Your task to perform on an android device: change alarm snooze length Image 0: 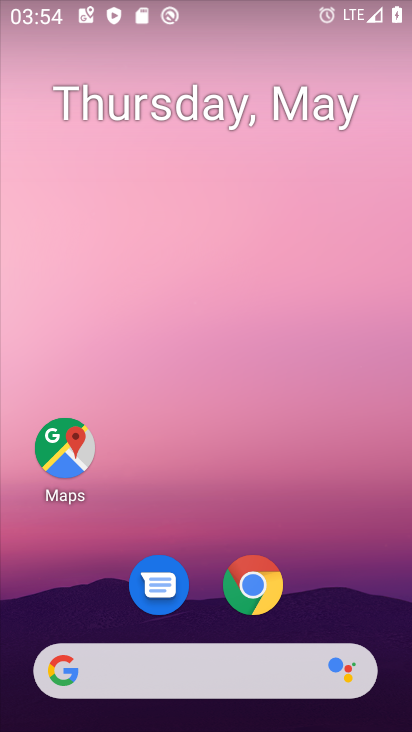
Step 0: drag from (202, 470) to (269, 38)
Your task to perform on an android device: change alarm snooze length Image 1: 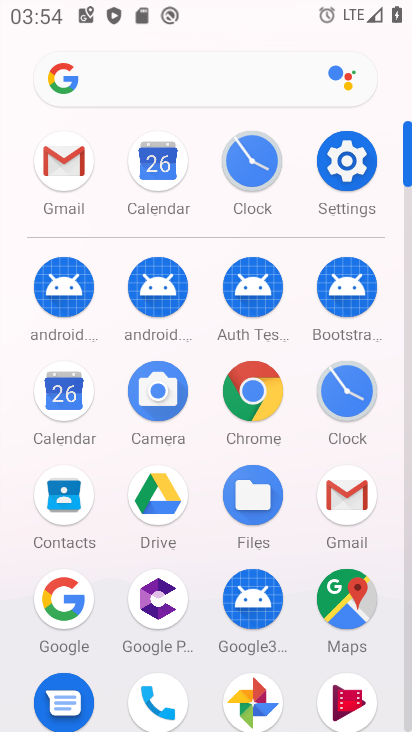
Step 1: click (260, 169)
Your task to perform on an android device: change alarm snooze length Image 2: 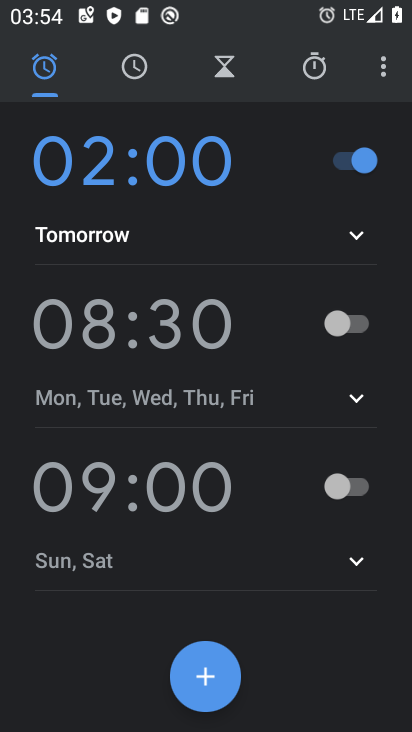
Step 2: click (381, 66)
Your task to perform on an android device: change alarm snooze length Image 3: 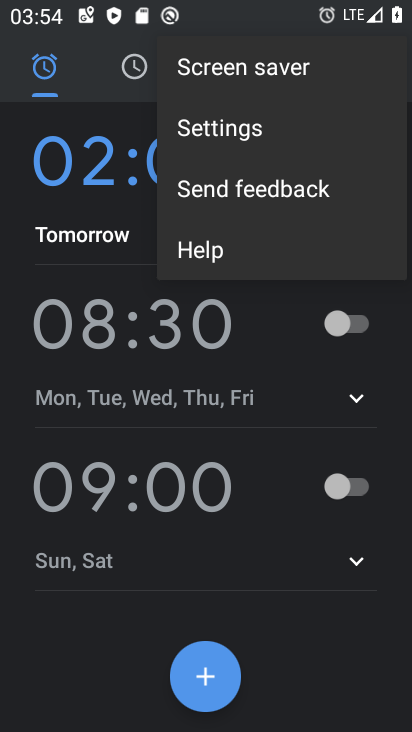
Step 3: click (280, 129)
Your task to perform on an android device: change alarm snooze length Image 4: 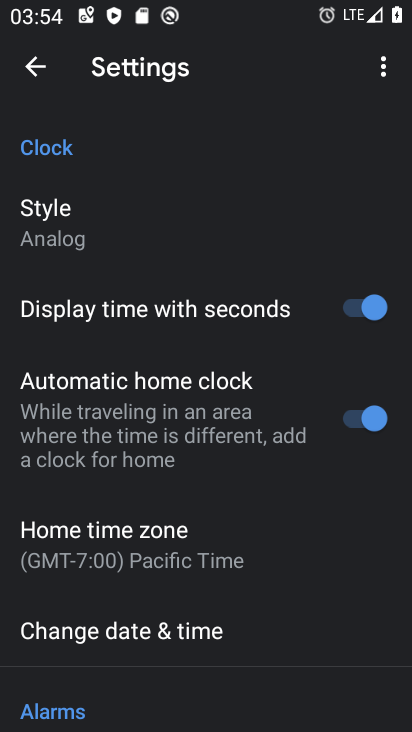
Step 4: drag from (204, 524) to (203, 120)
Your task to perform on an android device: change alarm snooze length Image 5: 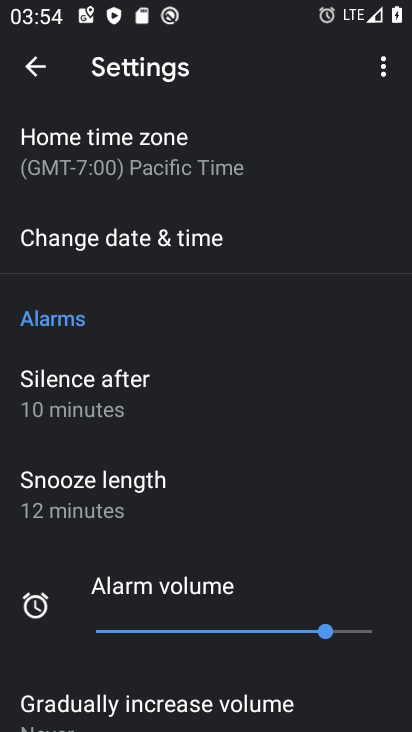
Step 5: click (158, 496)
Your task to perform on an android device: change alarm snooze length Image 6: 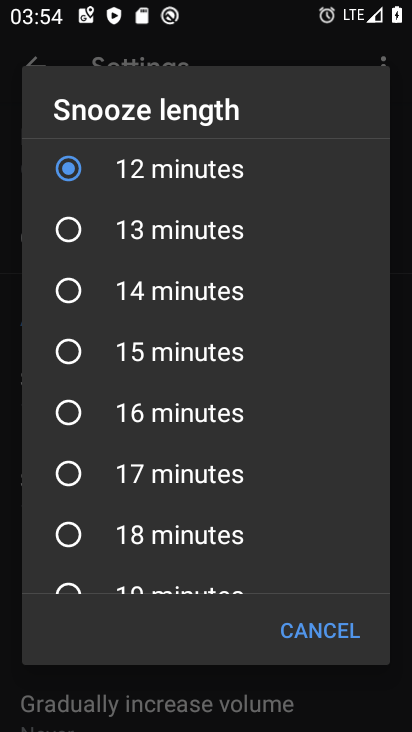
Step 6: click (71, 287)
Your task to perform on an android device: change alarm snooze length Image 7: 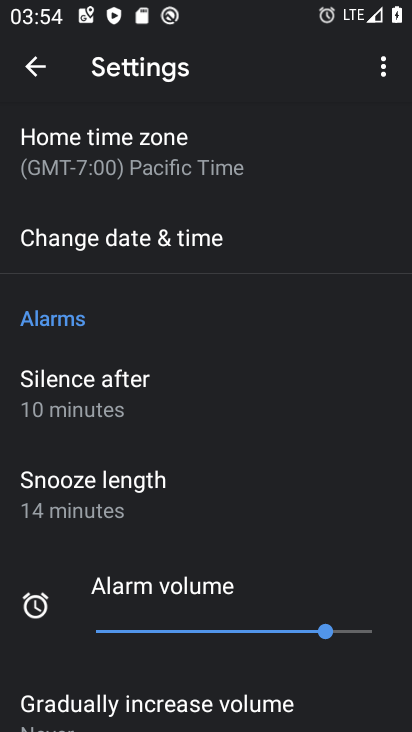
Step 7: task complete